Your task to perform on an android device: open chrome and create a bookmark for the current page Image 0: 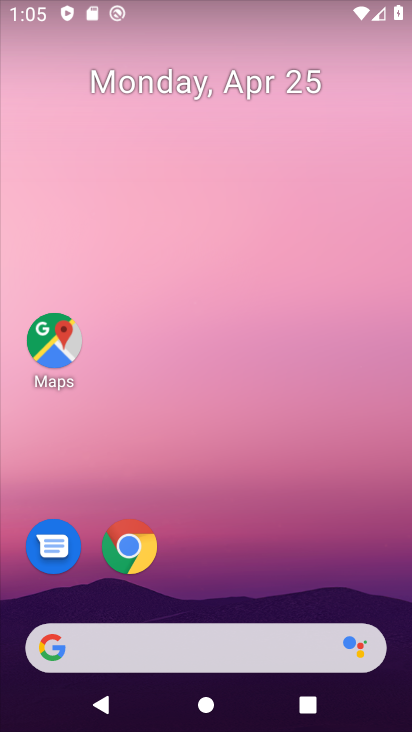
Step 0: drag from (201, 608) to (225, 9)
Your task to perform on an android device: open chrome and create a bookmark for the current page Image 1: 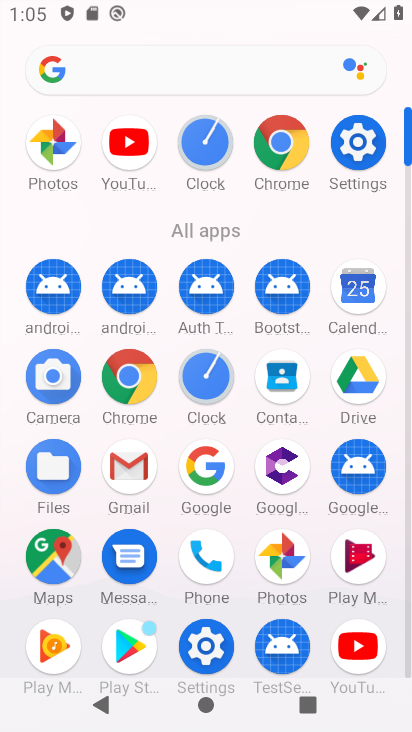
Step 1: click (284, 130)
Your task to perform on an android device: open chrome and create a bookmark for the current page Image 2: 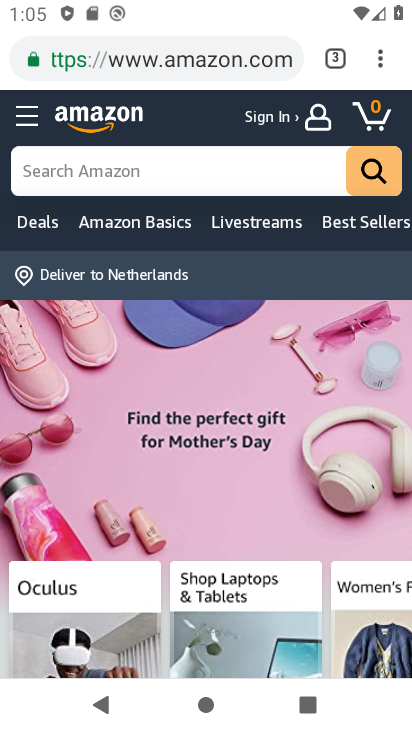
Step 2: task complete